Your task to perform on an android device: toggle wifi Image 0: 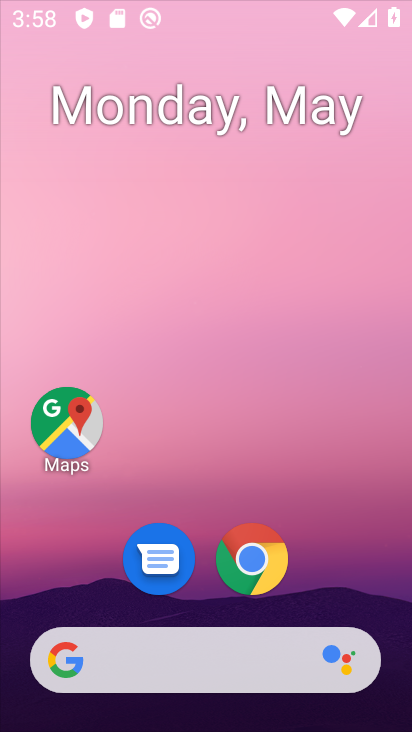
Step 0: click (251, 59)
Your task to perform on an android device: toggle wifi Image 1: 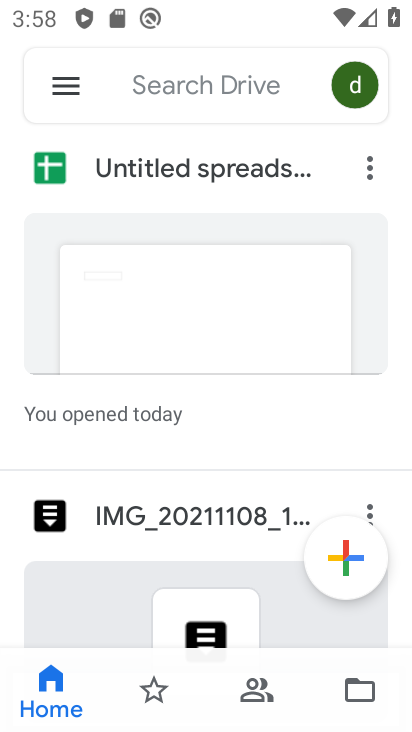
Step 1: press back button
Your task to perform on an android device: toggle wifi Image 2: 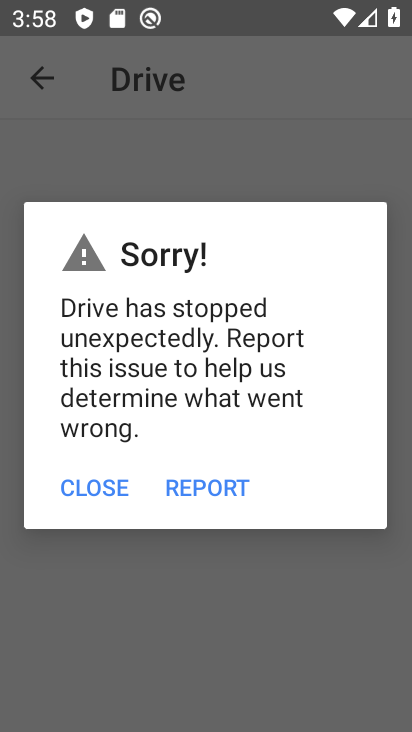
Step 2: press home button
Your task to perform on an android device: toggle wifi Image 3: 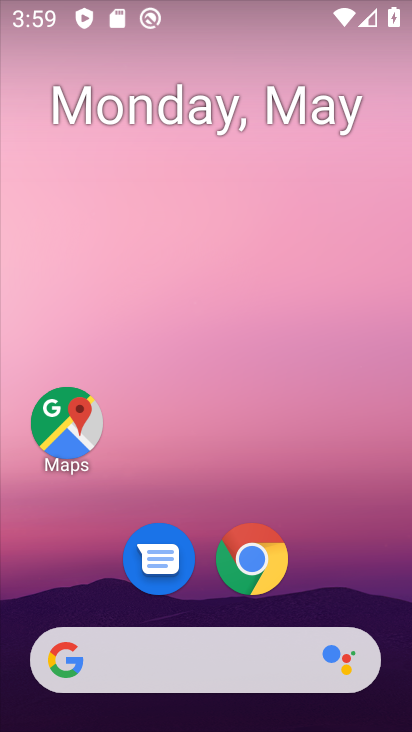
Step 3: drag from (328, 568) to (253, 118)
Your task to perform on an android device: toggle wifi Image 4: 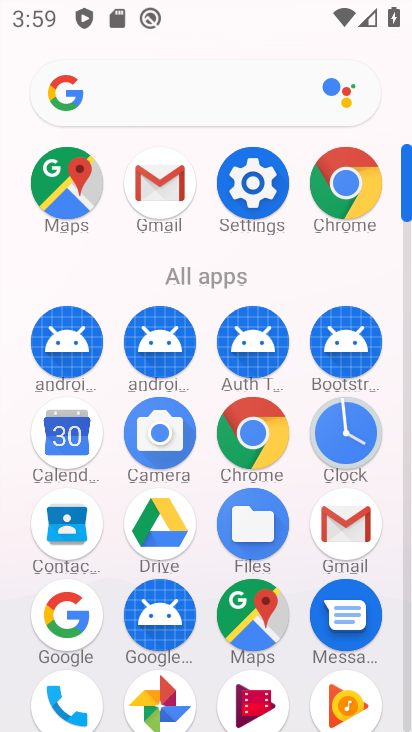
Step 4: click (259, 176)
Your task to perform on an android device: toggle wifi Image 5: 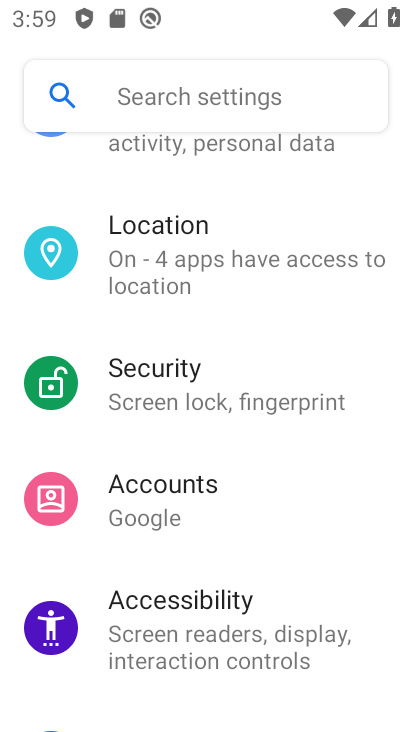
Step 5: drag from (259, 176) to (264, 560)
Your task to perform on an android device: toggle wifi Image 6: 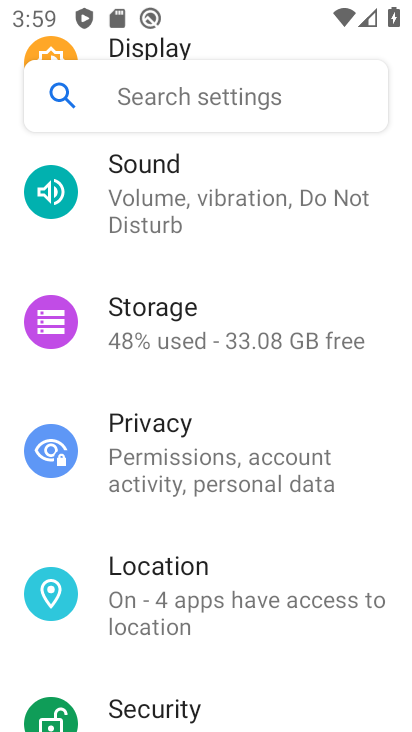
Step 6: drag from (222, 181) to (215, 497)
Your task to perform on an android device: toggle wifi Image 7: 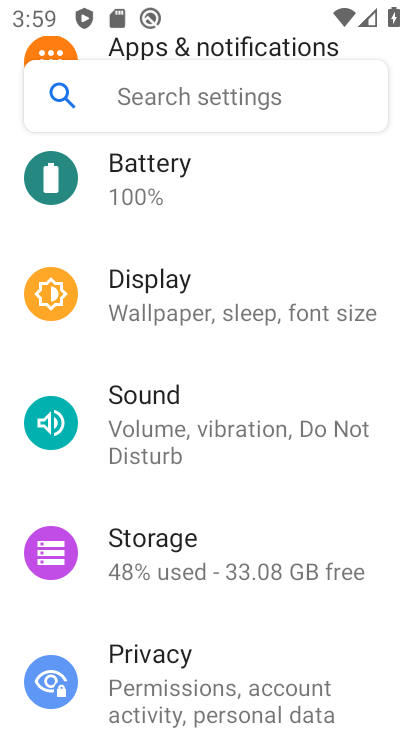
Step 7: drag from (196, 179) to (230, 630)
Your task to perform on an android device: toggle wifi Image 8: 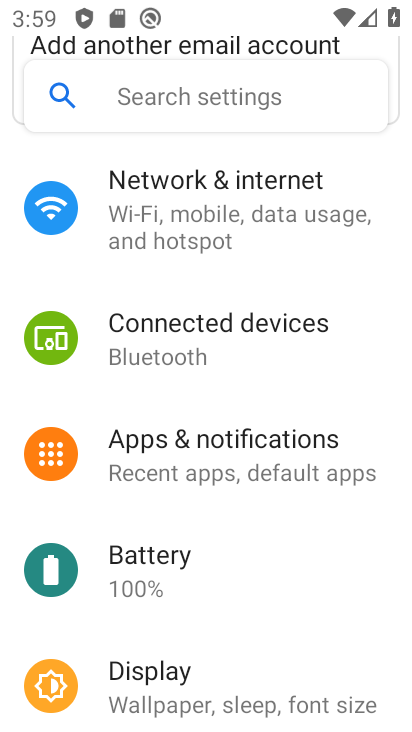
Step 8: drag from (257, 194) to (256, 556)
Your task to perform on an android device: toggle wifi Image 9: 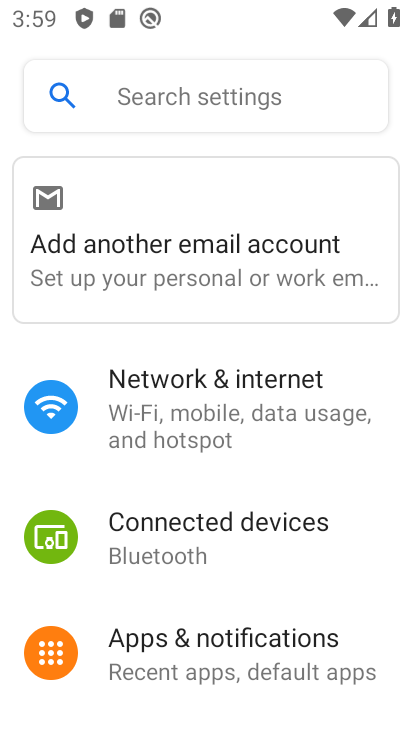
Step 9: click (196, 403)
Your task to perform on an android device: toggle wifi Image 10: 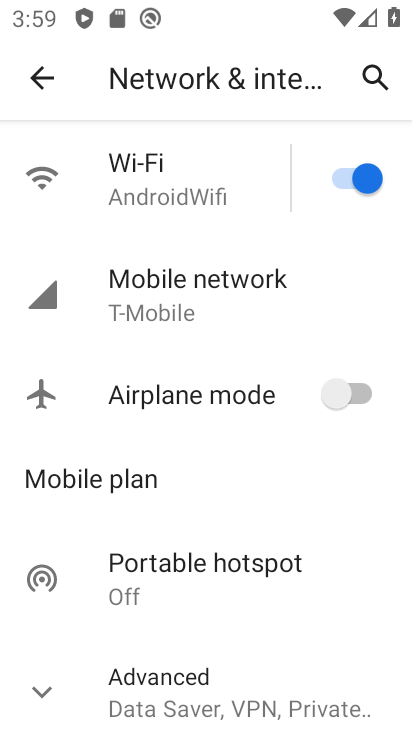
Step 10: click (356, 178)
Your task to perform on an android device: toggle wifi Image 11: 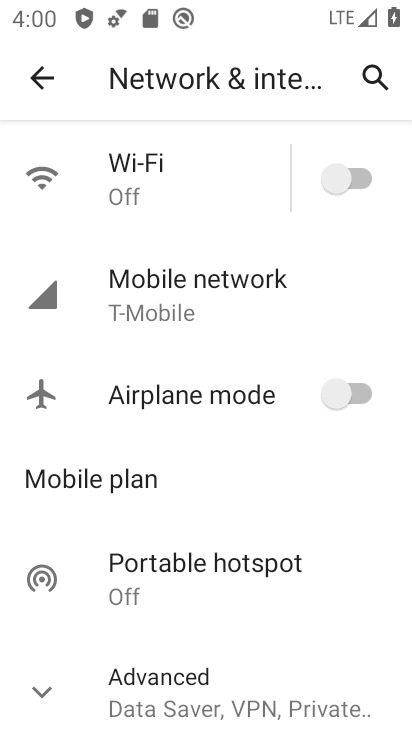
Step 11: task complete